Your task to perform on an android device: Check the news Image 0: 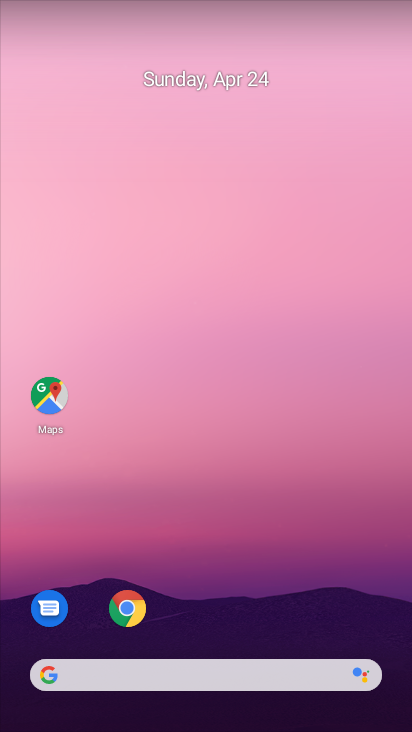
Step 0: click (248, 671)
Your task to perform on an android device: Check the news Image 1: 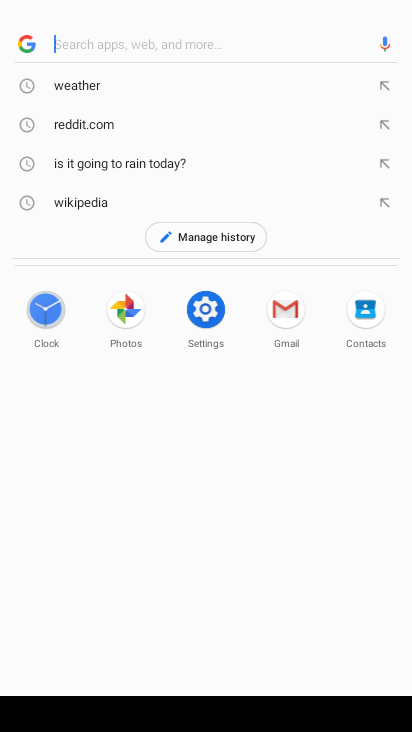
Step 1: click (30, 42)
Your task to perform on an android device: Check the news Image 2: 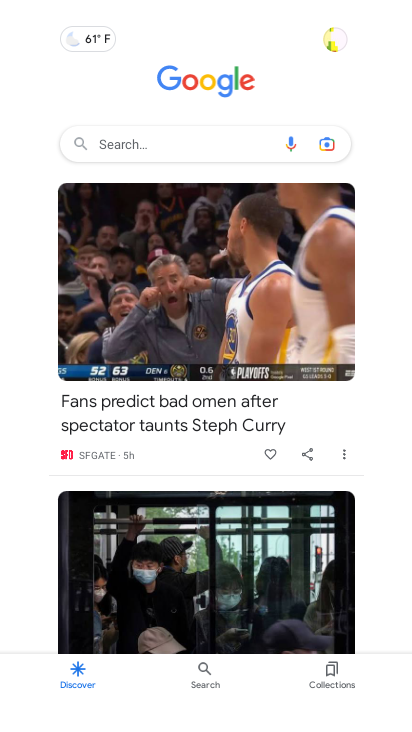
Step 2: click (228, 269)
Your task to perform on an android device: Check the news Image 3: 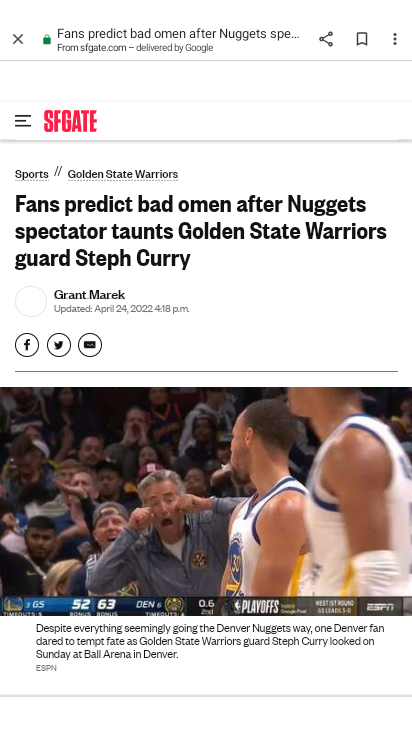
Step 3: task complete